Your task to perform on an android device: check storage Image 0: 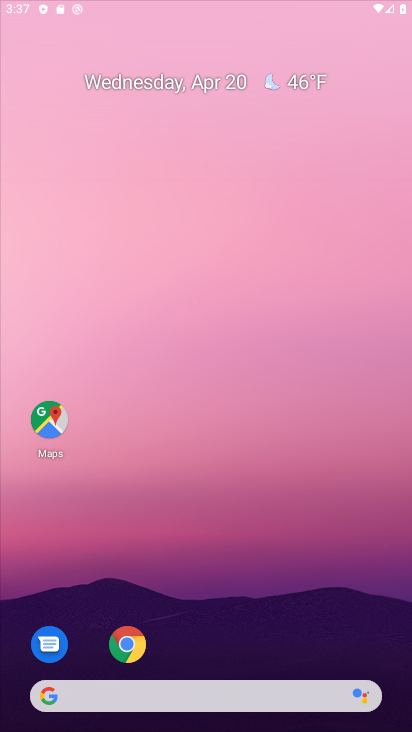
Step 0: click (263, 96)
Your task to perform on an android device: check storage Image 1: 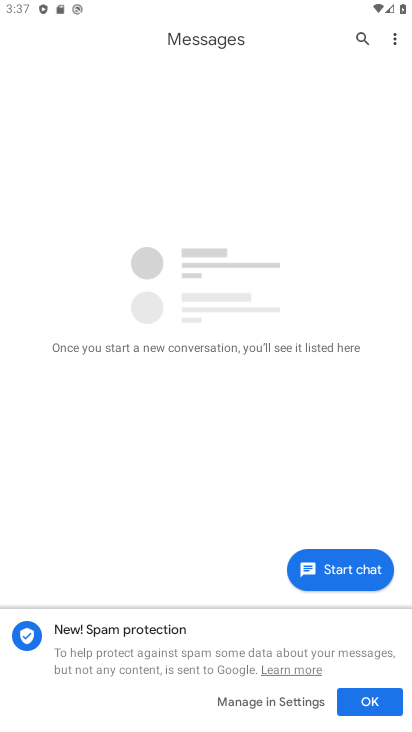
Step 1: press back button
Your task to perform on an android device: check storage Image 2: 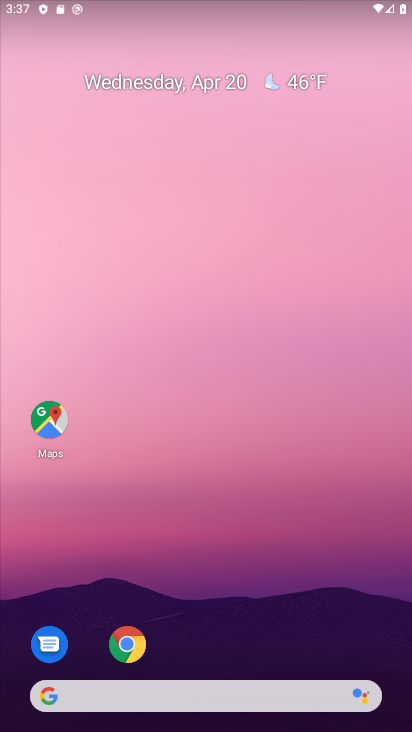
Step 2: drag from (229, 629) to (308, 214)
Your task to perform on an android device: check storage Image 3: 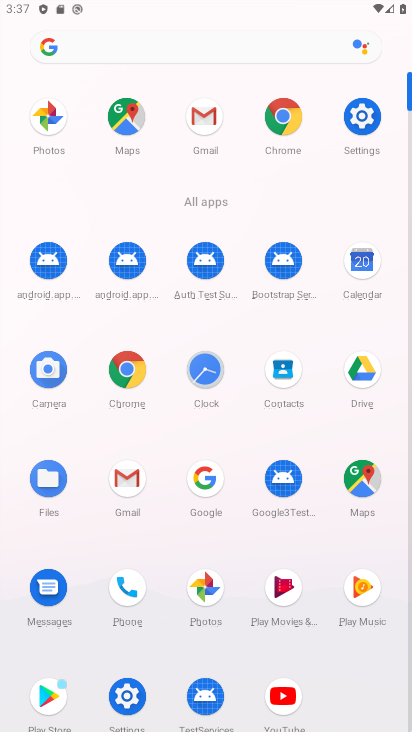
Step 3: click (135, 690)
Your task to perform on an android device: check storage Image 4: 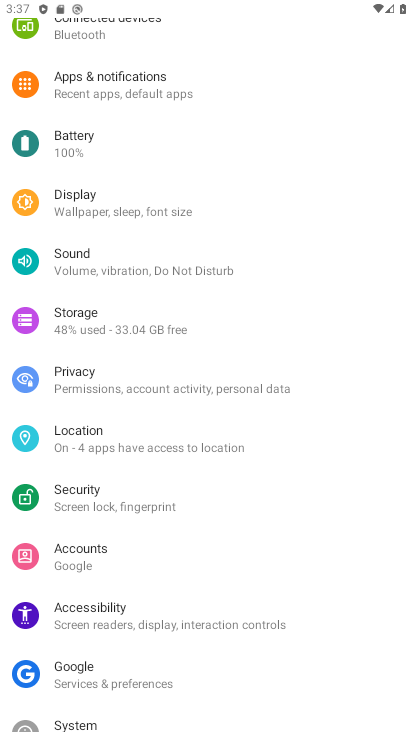
Step 4: click (88, 322)
Your task to perform on an android device: check storage Image 5: 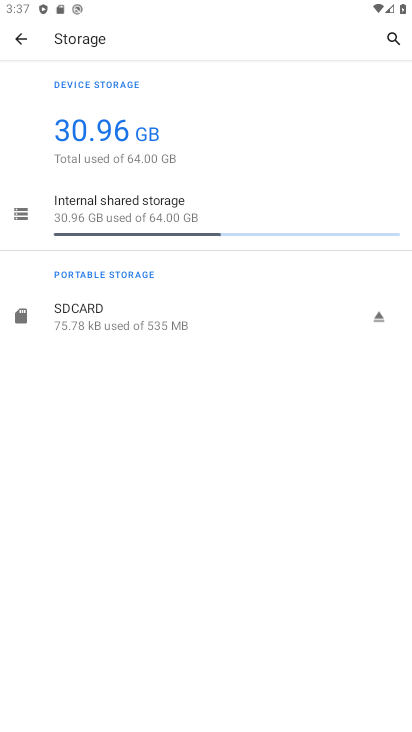
Step 5: click (234, 219)
Your task to perform on an android device: check storage Image 6: 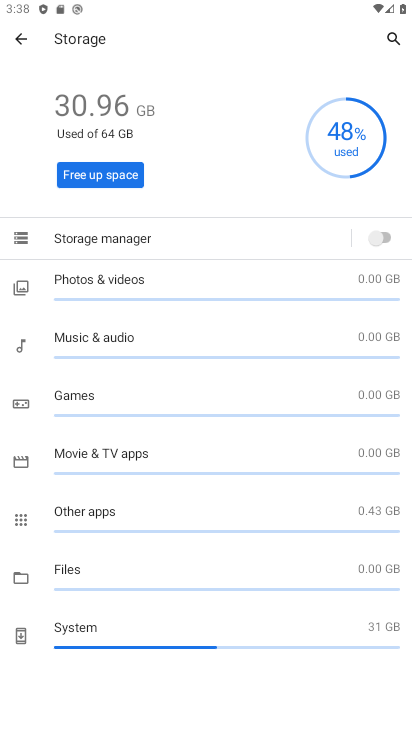
Step 6: task complete